Your task to perform on an android device: turn on translation in the chrome app Image 0: 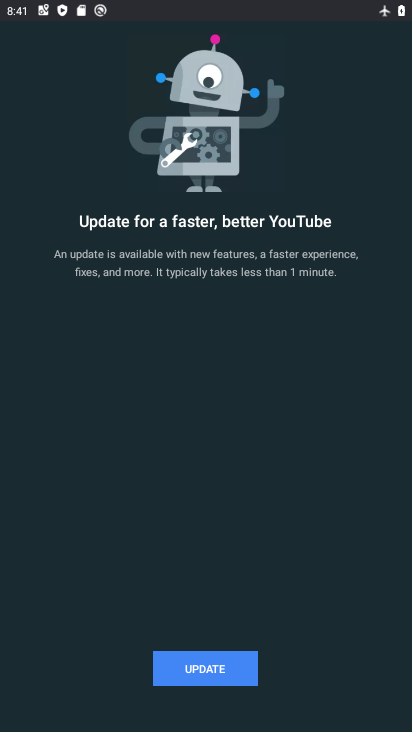
Step 0: press home button
Your task to perform on an android device: turn on translation in the chrome app Image 1: 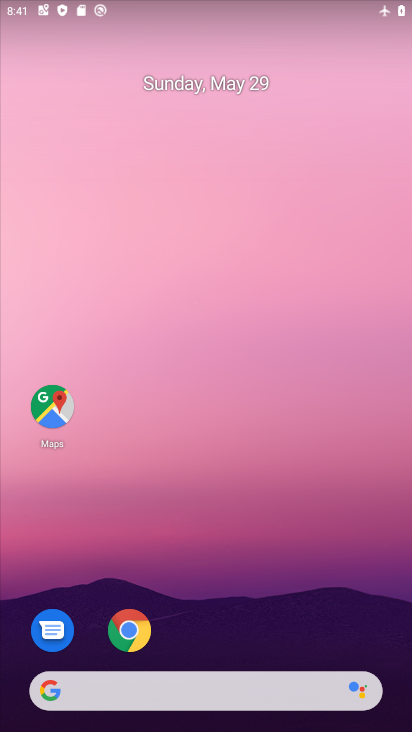
Step 1: click (140, 636)
Your task to perform on an android device: turn on translation in the chrome app Image 2: 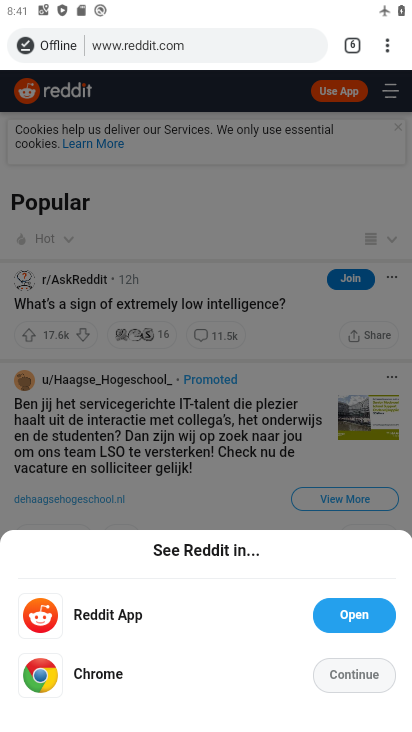
Step 2: click (391, 48)
Your task to perform on an android device: turn on translation in the chrome app Image 3: 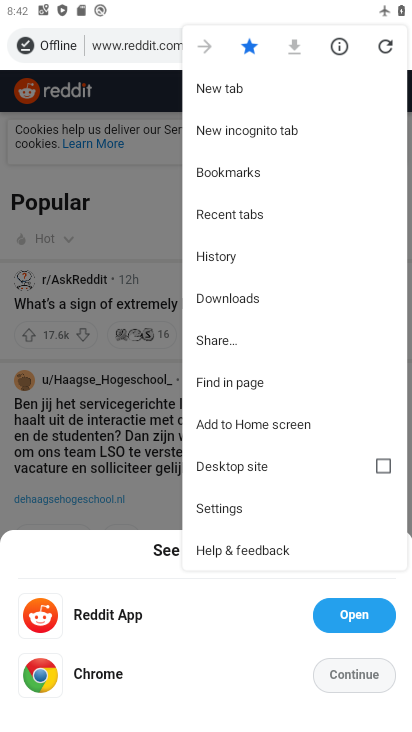
Step 3: click (229, 506)
Your task to perform on an android device: turn on translation in the chrome app Image 4: 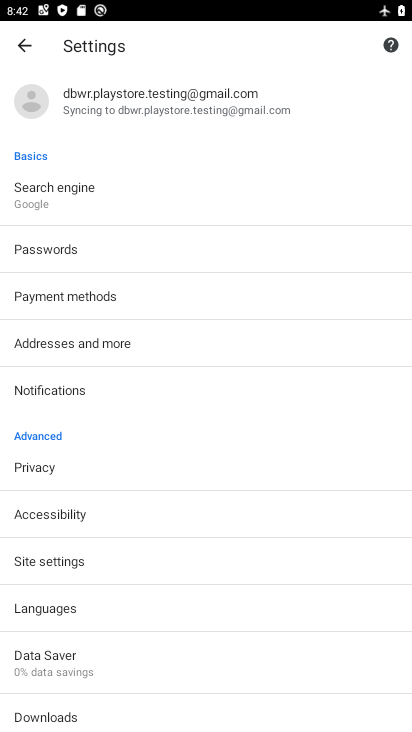
Step 4: click (37, 604)
Your task to perform on an android device: turn on translation in the chrome app Image 5: 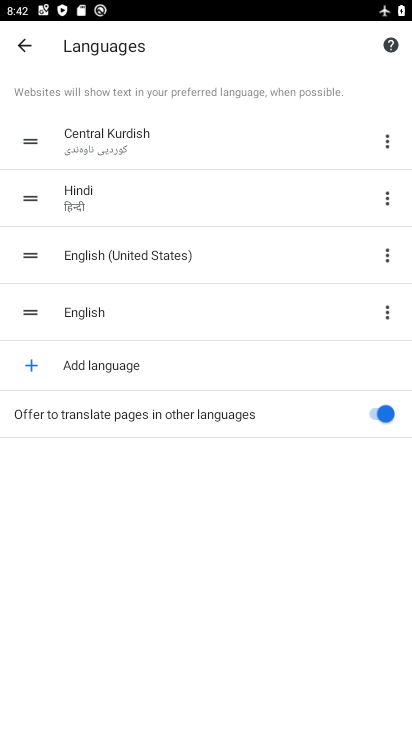
Step 5: task complete